Your task to perform on an android device: create a new album in the google photos Image 0: 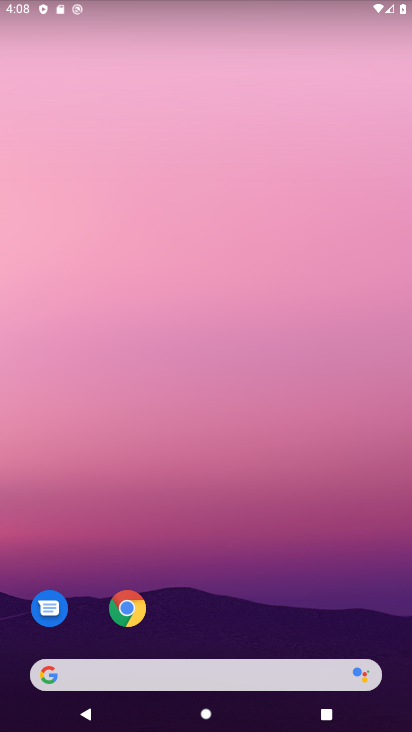
Step 0: drag from (224, 654) to (198, 62)
Your task to perform on an android device: create a new album in the google photos Image 1: 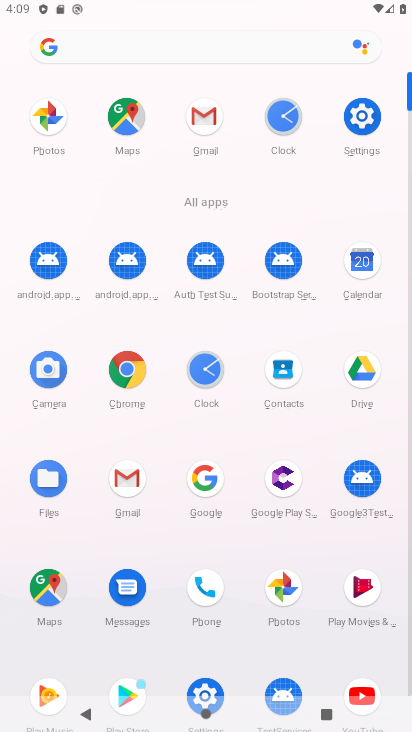
Step 1: click (288, 576)
Your task to perform on an android device: create a new album in the google photos Image 2: 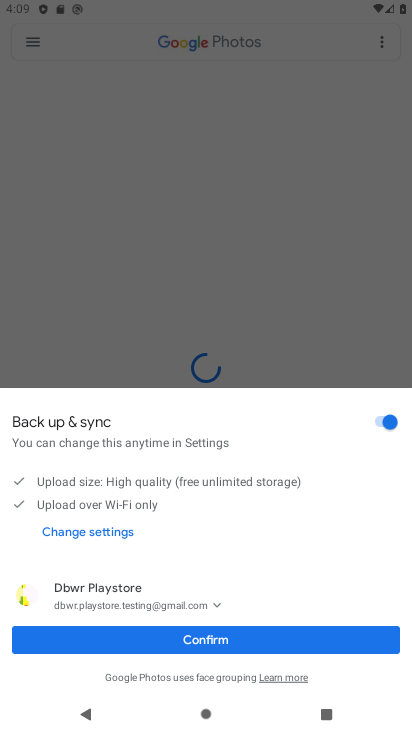
Step 2: click (128, 651)
Your task to perform on an android device: create a new album in the google photos Image 3: 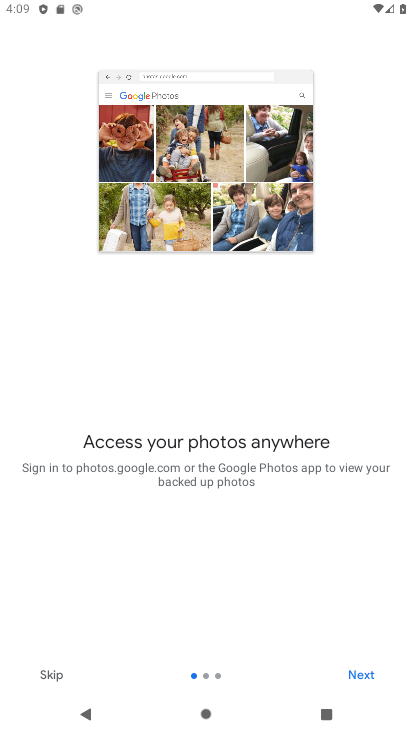
Step 3: click (60, 672)
Your task to perform on an android device: create a new album in the google photos Image 4: 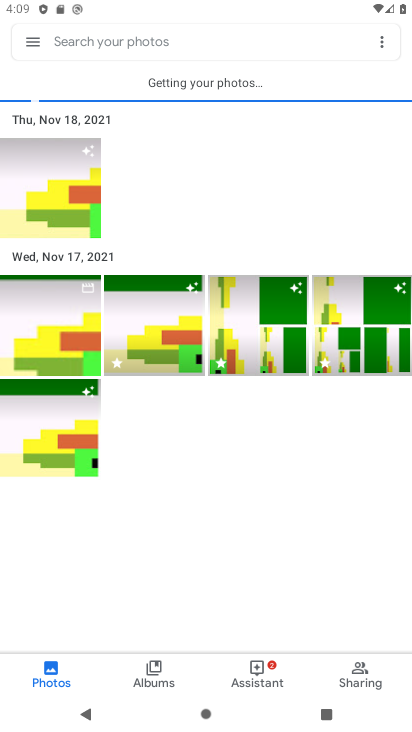
Step 4: click (68, 179)
Your task to perform on an android device: create a new album in the google photos Image 5: 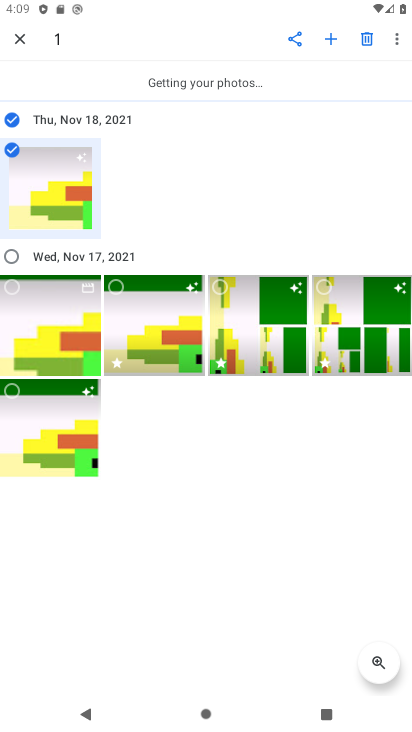
Step 5: click (79, 300)
Your task to perform on an android device: create a new album in the google photos Image 6: 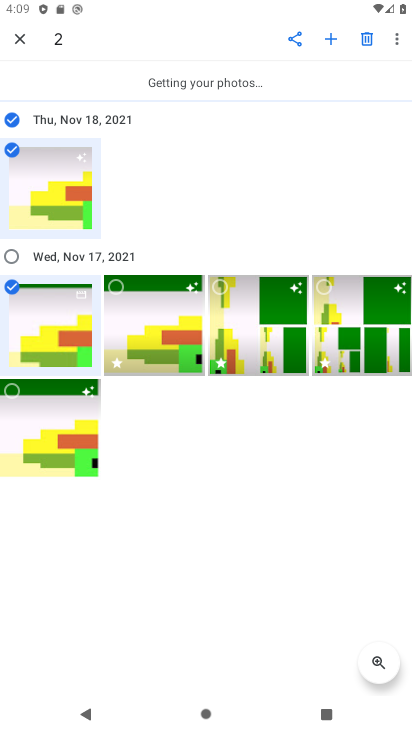
Step 6: click (332, 38)
Your task to perform on an android device: create a new album in the google photos Image 7: 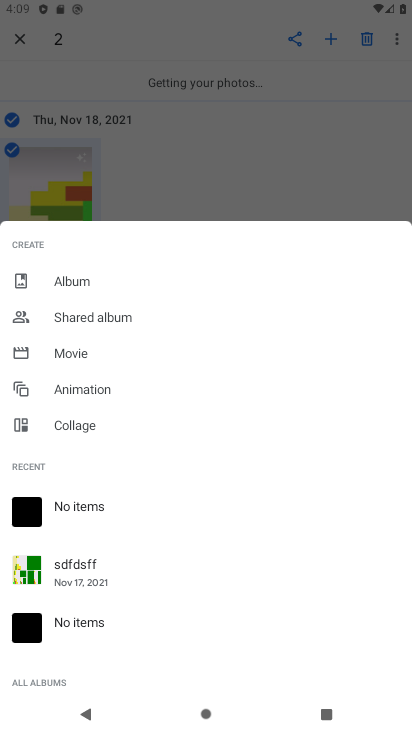
Step 7: click (60, 286)
Your task to perform on an android device: create a new album in the google photos Image 8: 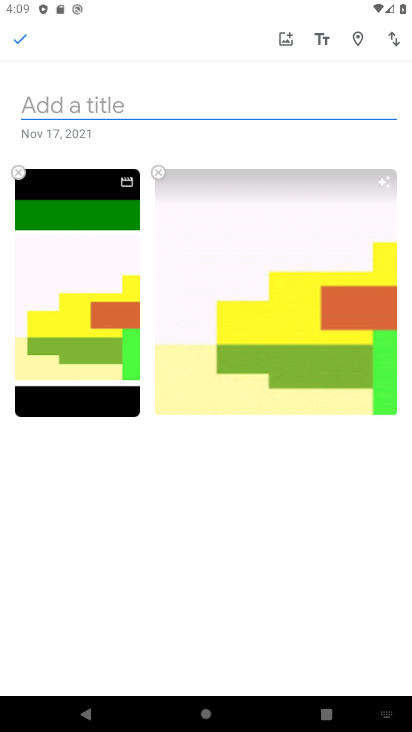
Step 8: type "x"
Your task to perform on an android device: create a new album in the google photos Image 9: 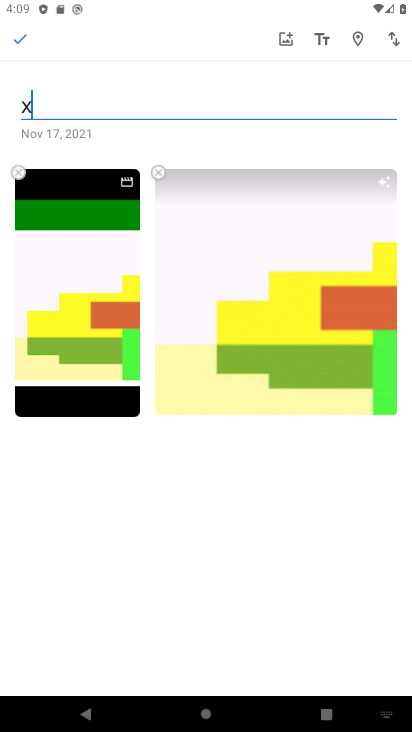
Step 9: click (20, 37)
Your task to perform on an android device: create a new album in the google photos Image 10: 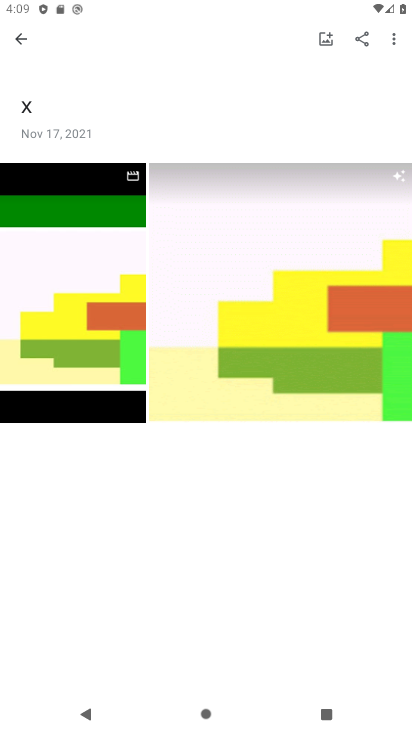
Step 10: task complete